Your task to perform on an android device: change the clock display to analog Image 0: 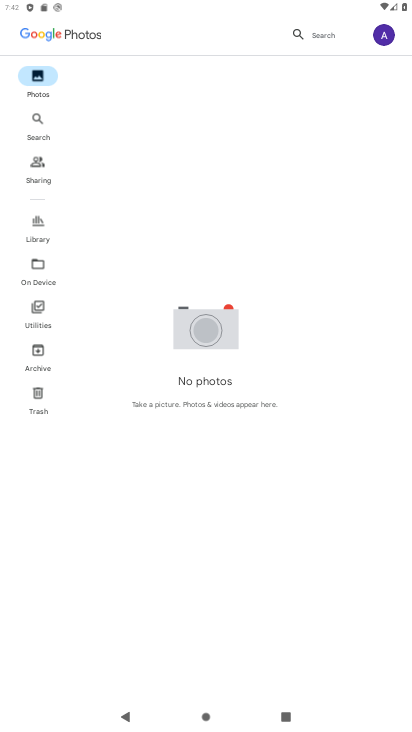
Step 0: press home button
Your task to perform on an android device: change the clock display to analog Image 1: 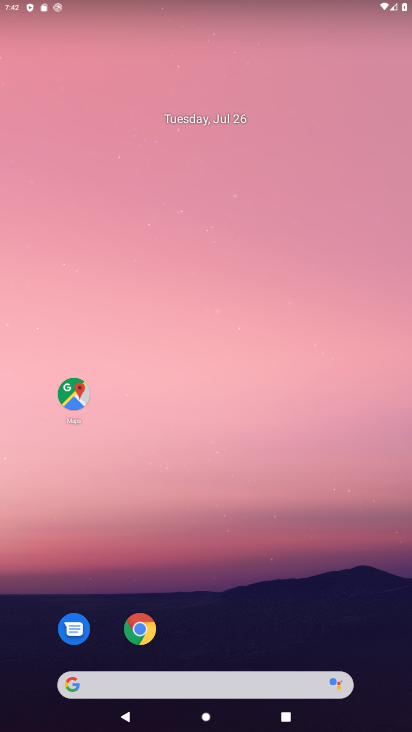
Step 1: drag from (214, 649) to (231, 282)
Your task to perform on an android device: change the clock display to analog Image 2: 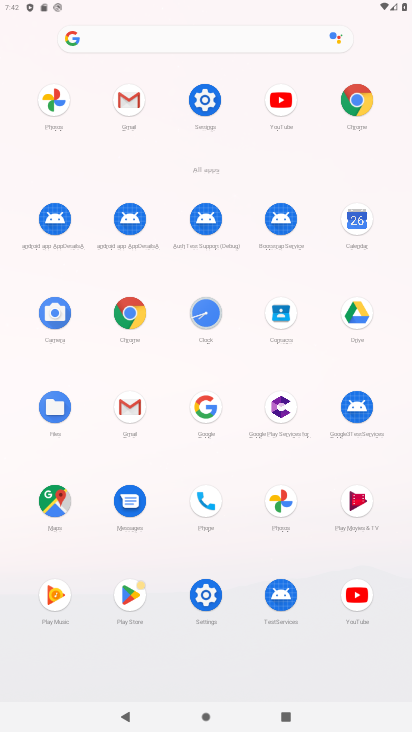
Step 2: click (202, 307)
Your task to perform on an android device: change the clock display to analog Image 3: 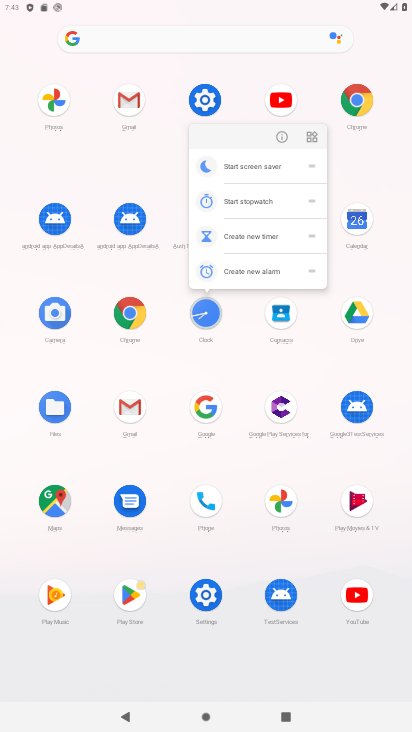
Step 3: click (204, 303)
Your task to perform on an android device: change the clock display to analog Image 4: 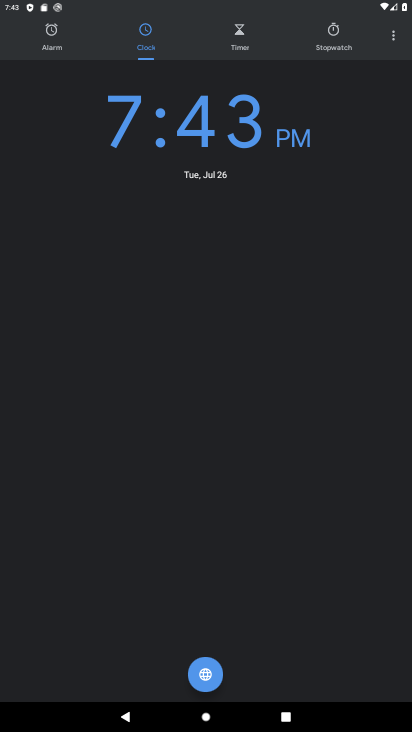
Step 4: click (391, 36)
Your task to perform on an android device: change the clock display to analog Image 5: 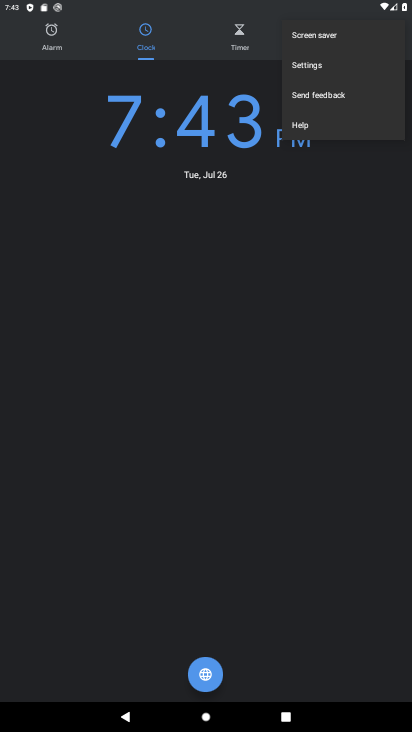
Step 5: click (333, 66)
Your task to perform on an android device: change the clock display to analog Image 6: 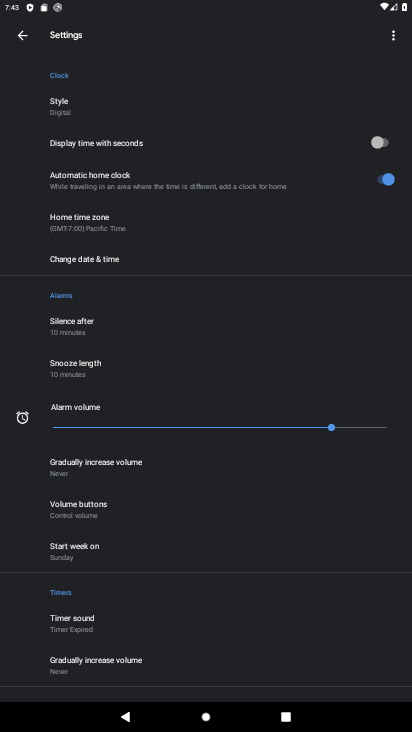
Step 6: click (76, 105)
Your task to perform on an android device: change the clock display to analog Image 7: 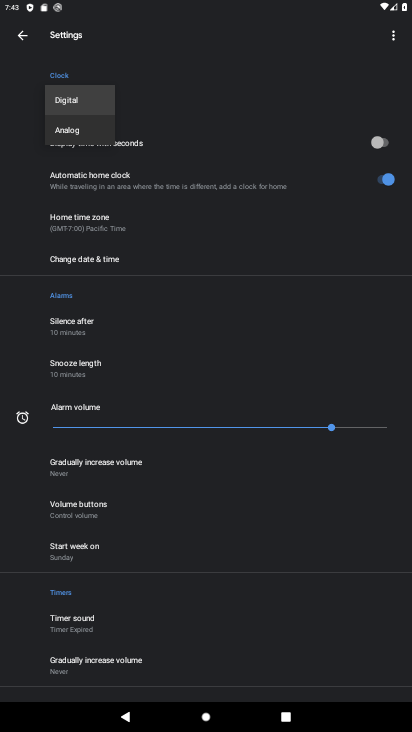
Step 7: click (87, 132)
Your task to perform on an android device: change the clock display to analog Image 8: 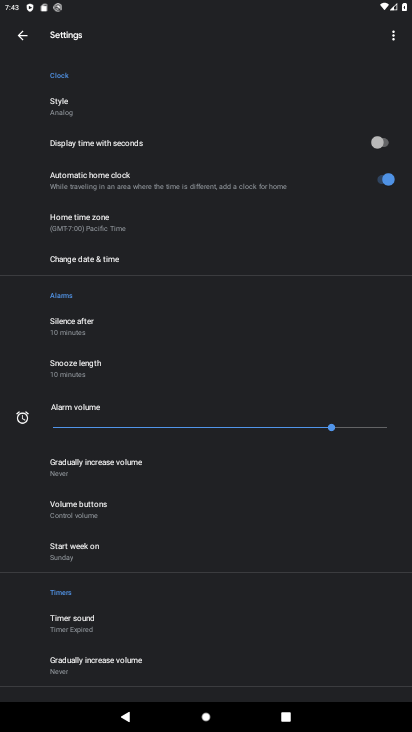
Step 8: task complete